Your task to perform on an android device: uninstall "Spotify: Music and Podcasts" Image 0: 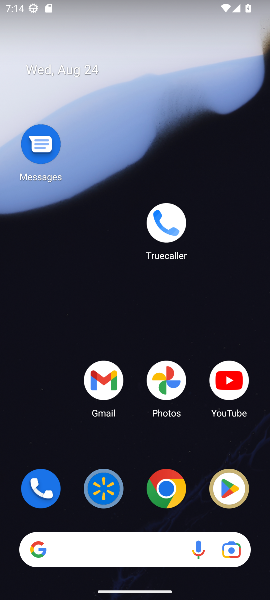
Step 0: drag from (194, 520) to (243, 67)
Your task to perform on an android device: uninstall "Spotify: Music and Podcasts" Image 1: 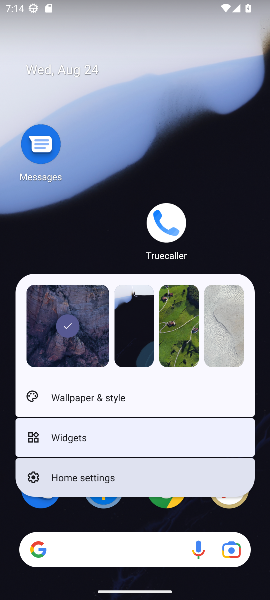
Step 1: click (243, 67)
Your task to perform on an android device: uninstall "Spotify: Music and Podcasts" Image 2: 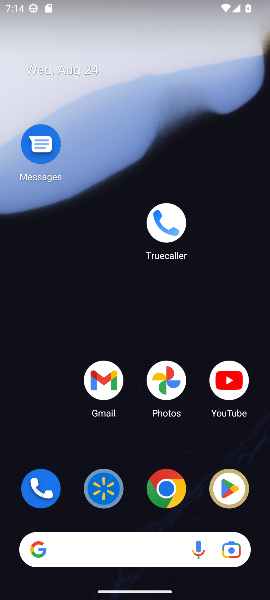
Step 2: drag from (204, 506) to (207, 134)
Your task to perform on an android device: uninstall "Spotify: Music and Podcasts" Image 3: 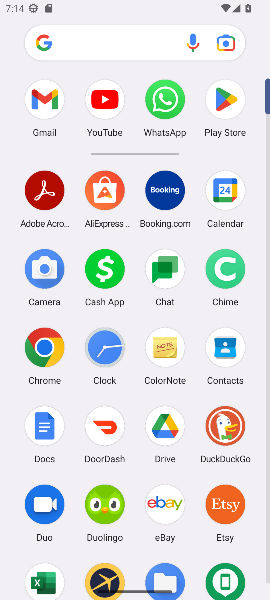
Step 3: drag from (268, 92) to (225, 413)
Your task to perform on an android device: uninstall "Spotify: Music and Podcasts" Image 4: 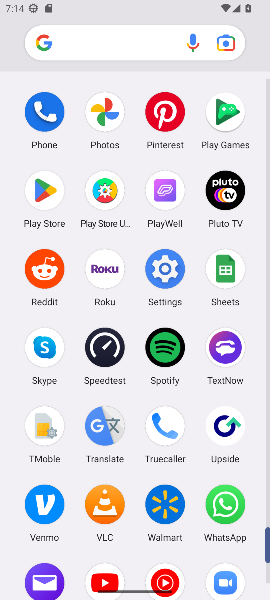
Step 4: drag from (268, 557) to (265, 591)
Your task to perform on an android device: uninstall "Spotify: Music and Podcasts" Image 5: 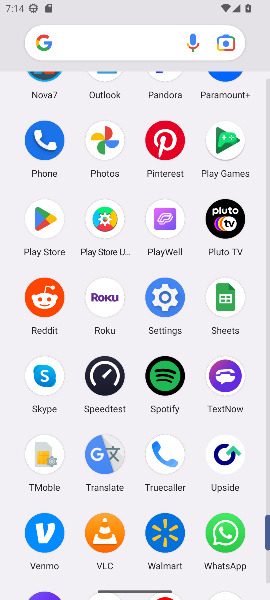
Step 5: click (268, 579)
Your task to perform on an android device: uninstall "Spotify: Music and Podcasts" Image 6: 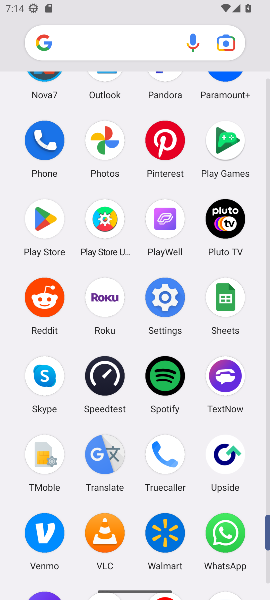
Step 6: click (268, 579)
Your task to perform on an android device: uninstall "Spotify: Music and Podcasts" Image 7: 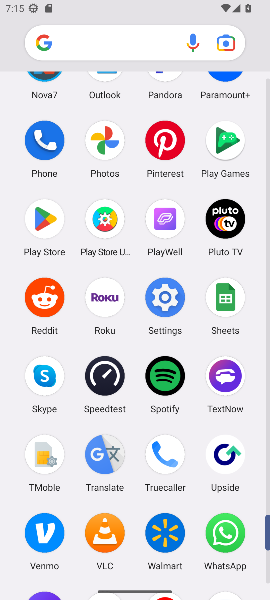
Step 7: click (169, 383)
Your task to perform on an android device: uninstall "Spotify: Music and Podcasts" Image 8: 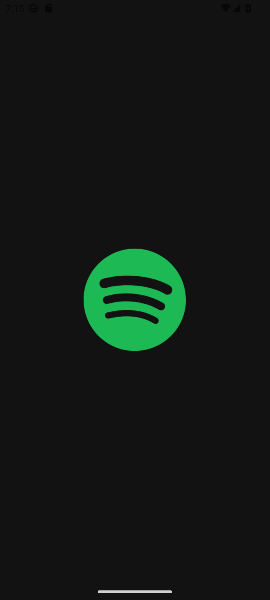
Step 8: task complete